Your task to perform on an android device: Open Google Maps and go to "Timeline" Image 0: 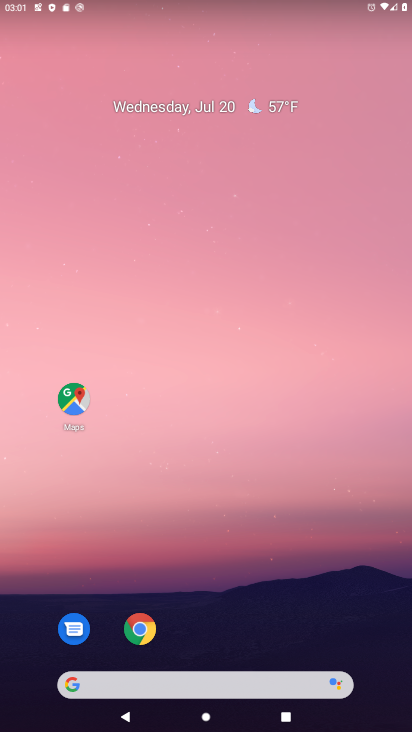
Step 0: click (75, 401)
Your task to perform on an android device: Open Google Maps and go to "Timeline" Image 1: 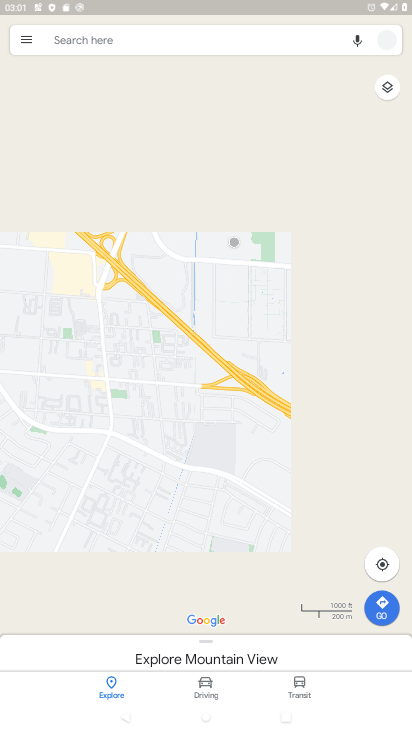
Step 1: click (23, 39)
Your task to perform on an android device: Open Google Maps and go to "Timeline" Image 2: 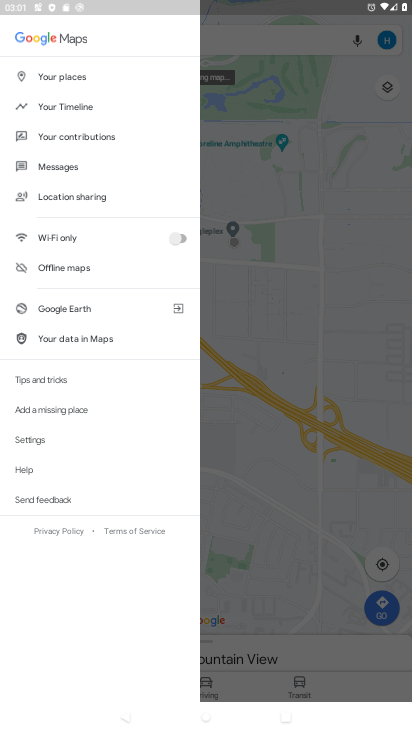
Step 2: click (59, 106)
Your task to perform on an android device: Open Google Maps and go to "Timeline" Image 3: 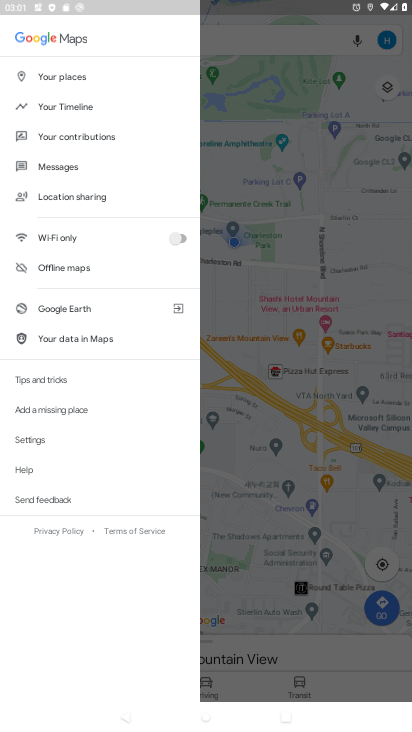
Step 3: click (59, 106)
Your task to perform on an android device: Open Google Maps and go to "Timeline" Image 4: 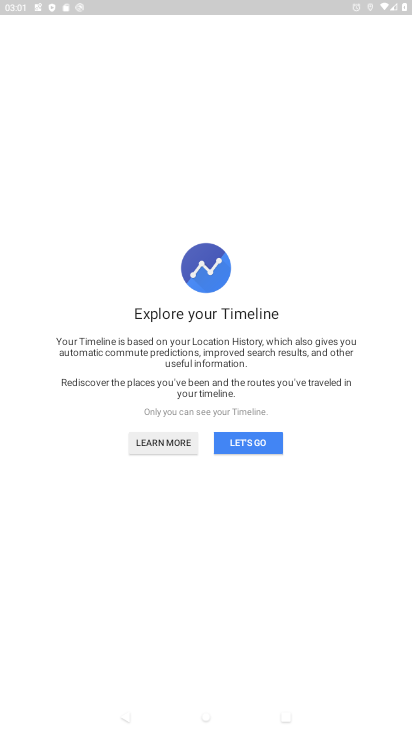
Step 4: click (243, 443)
Your task to perform on an android device: Open Google Maps and go to "Timeline" Image 5: 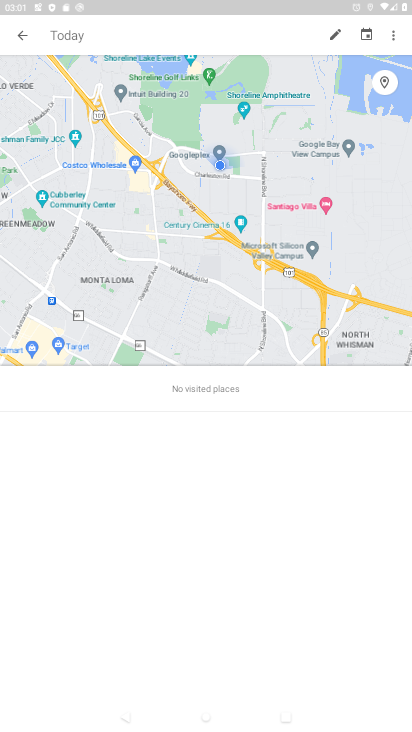
Step 5: task complete